Your task to perform on an android device: change the clock display to analog Image 0: 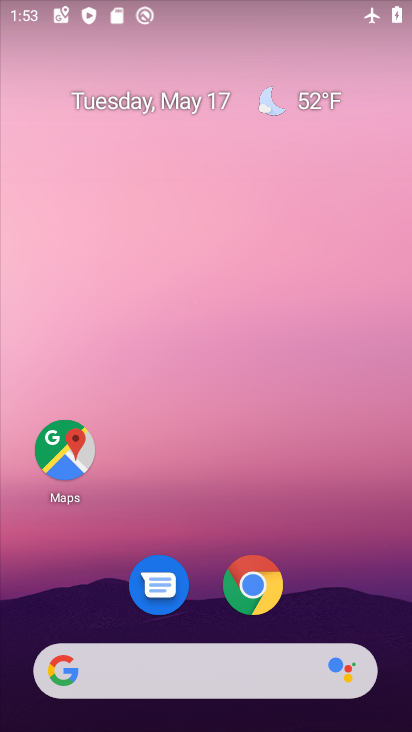
Step 0: drag from (236, 532) to (244, 31)
Your task to perform on an android device: change the clock display to analog Image 1: 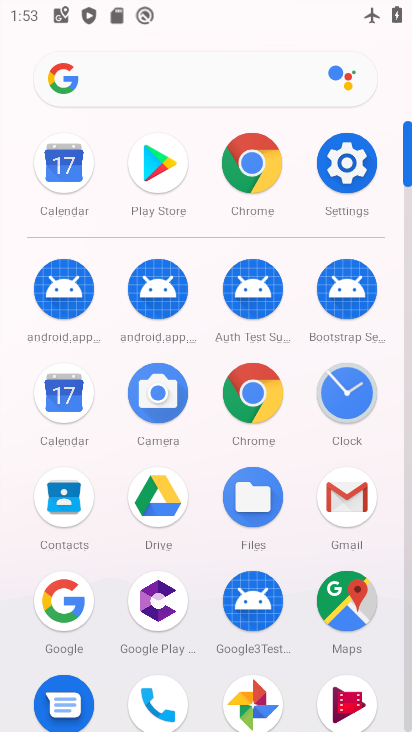
Step 1: click (335, 389)
Your task to perform on an android device: change the clock display to analog Image 2: 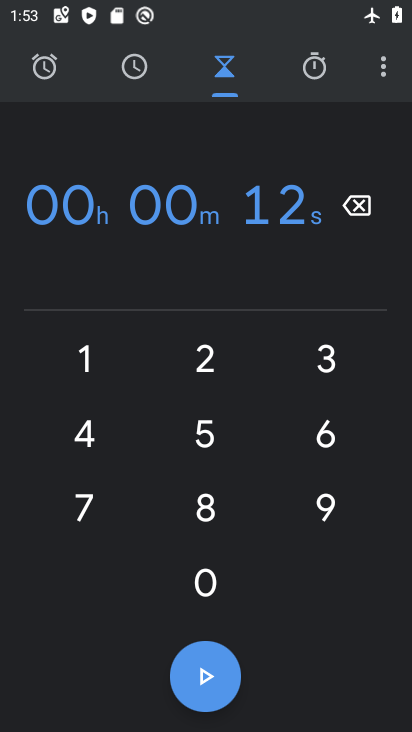
Step 2: click (381, 73)
Your task to perform on an android device: change the clock display to analog Image 3: 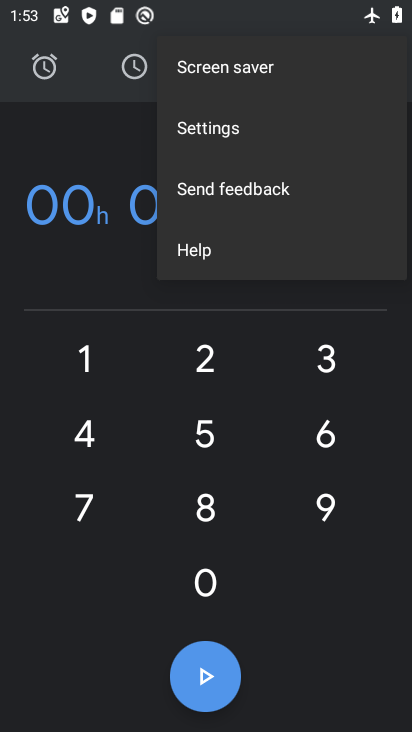
Step 3: click (300, 126)
Your task to perform on an android device: change the clock display to analog Image 4: 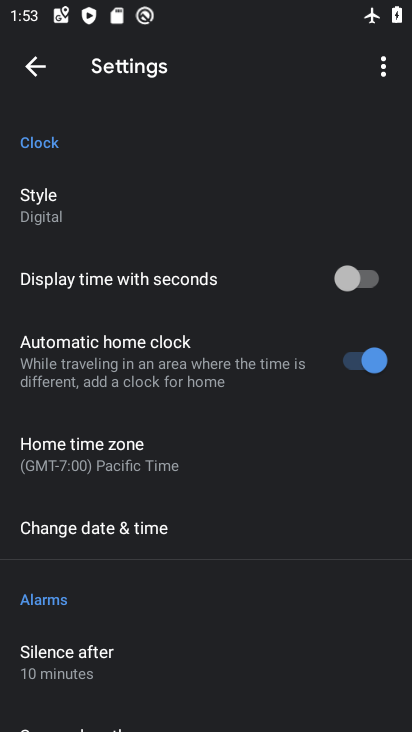
Step 4: click (98, 210)
Your task to perform on an android device: change the clock display to analog Image 5: 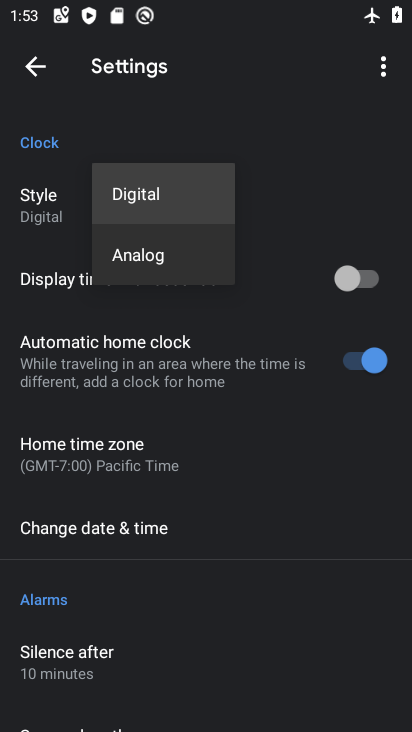
Step 5: click (136, 256)
Your task to perform on an android device: change the clock display to analog Image 6: 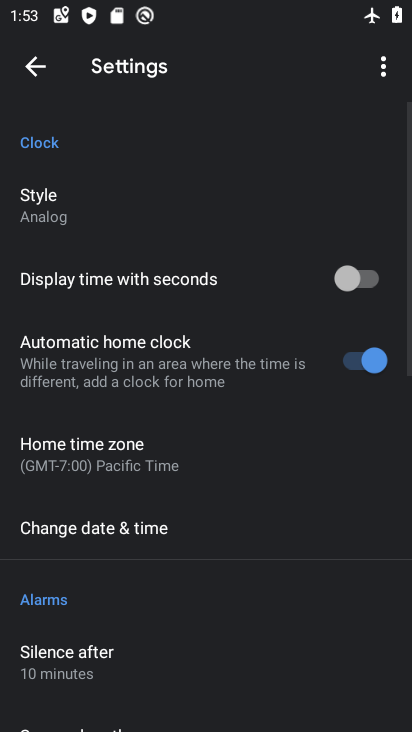
Step 6: click (40, 68)
Your task to perform on an android device: change the clock display to analog Image 7: 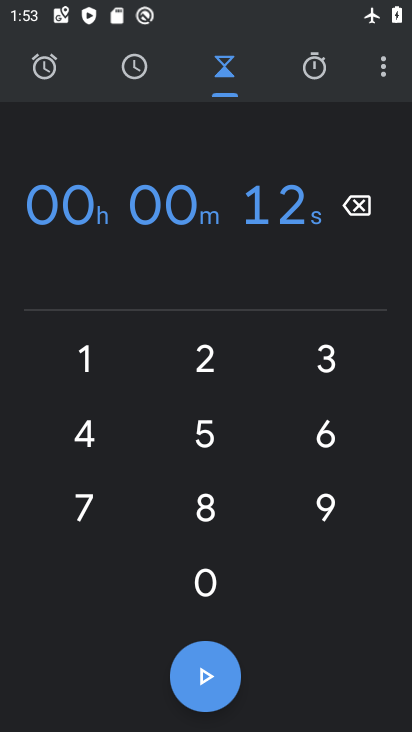
Step 7: click (126, 66)
Your task to perform on an android device: change the clock display to analog Image 8: 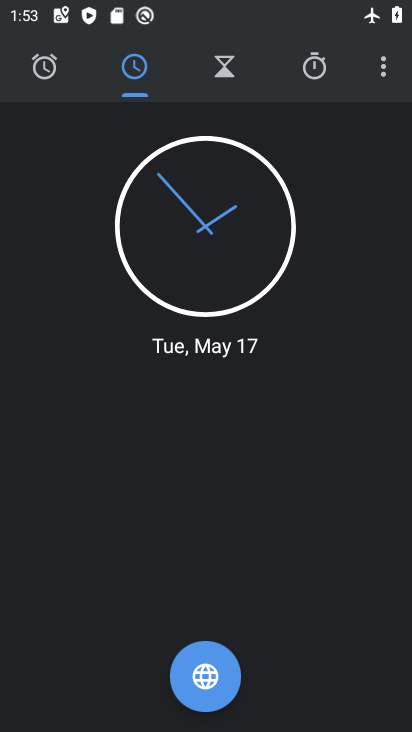
Step 8: task complete